Your task to perform on an android device: delete location history Image 0: 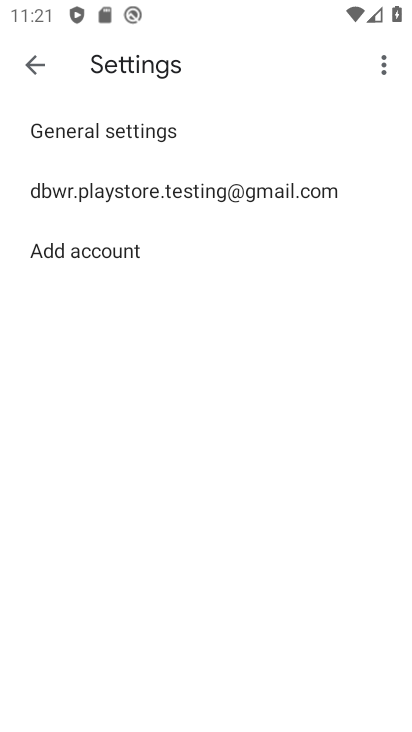
Step 0: press home button
Your task to perform on an android device: delete location history Image 1: 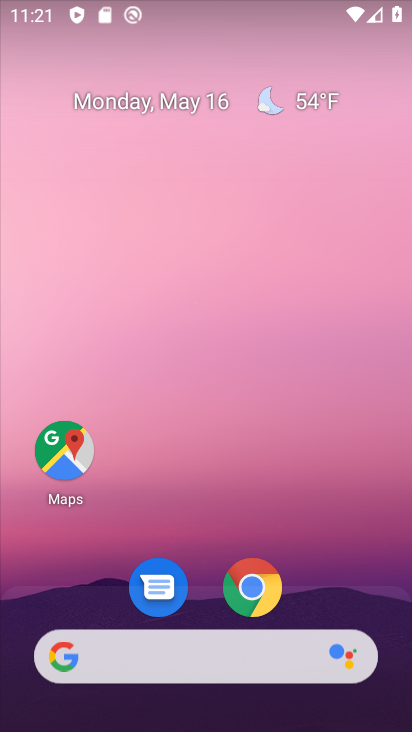
Step 1: click (71, 466)
Your task to perform on an android device: delete location history Image 2: 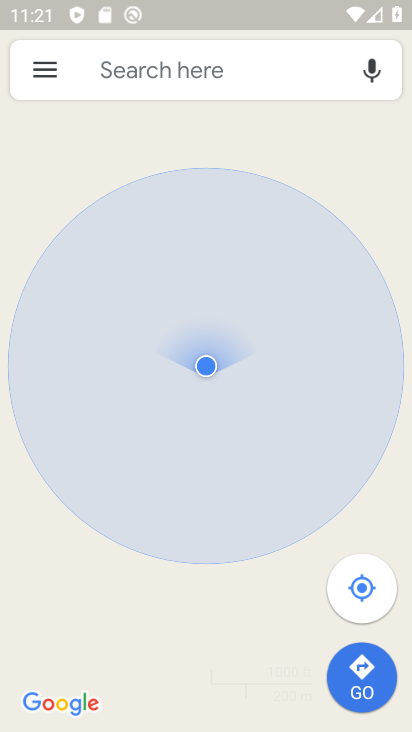
Step 2: click (50, 67)
Your task to perform on an android device: delete location history Image 3: 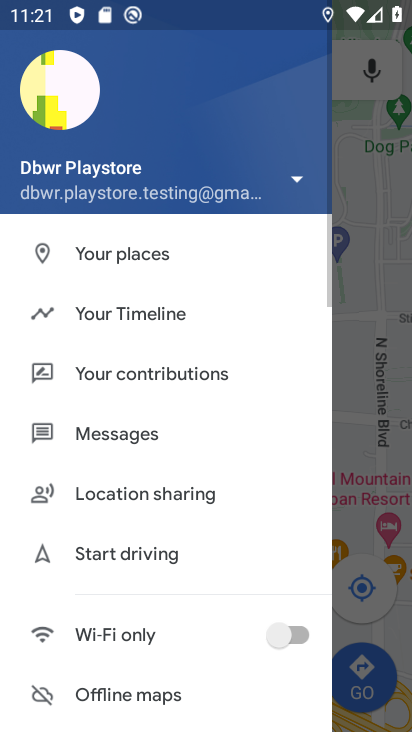
Step 3: click (136, 315)
Your task to perform on an android device: delete location history Image 4: 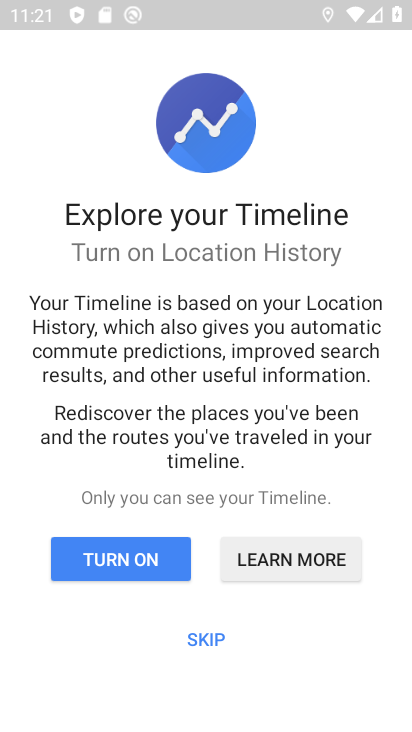
Step 4: click (212, 642)
Your task to perform on an android device: delete location history Image 5: 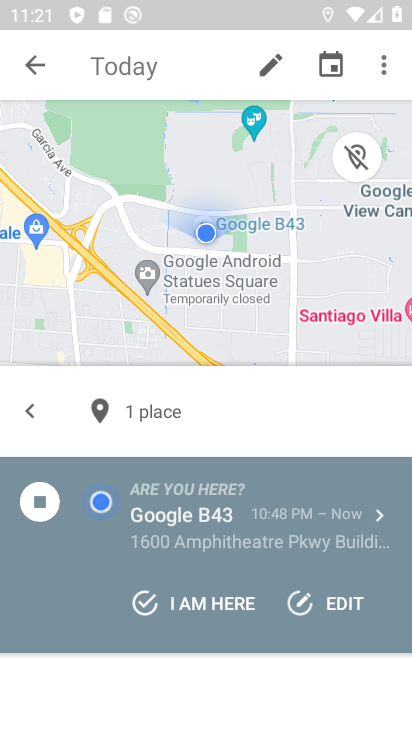
Step 5: click (370, 59)
Your task to perform on an android device: delete location history Image 6: 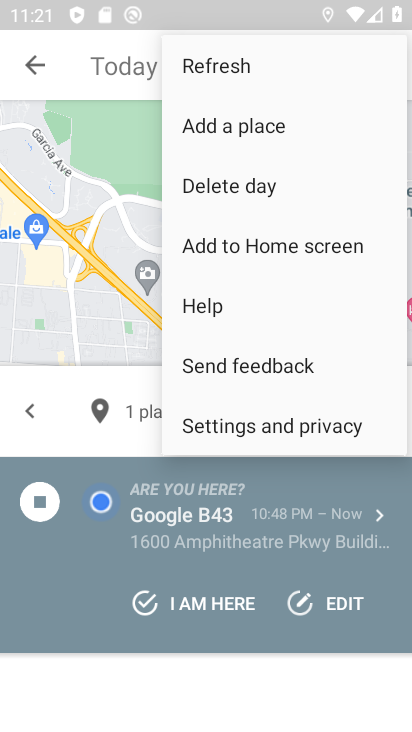
Step 6: click (242, 420)
Your task to perform on an android device: delete location history Image 7: 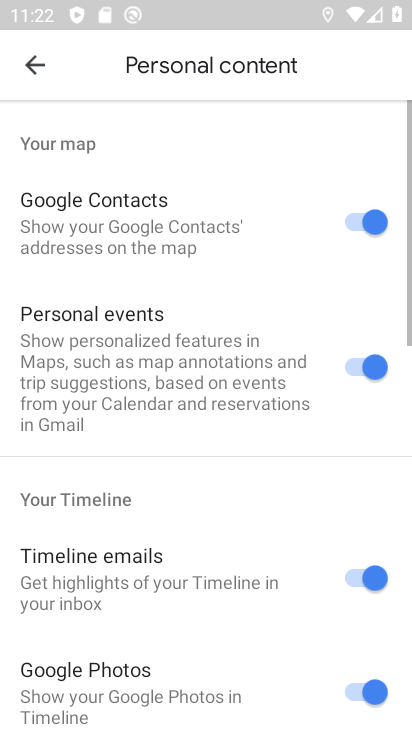
Step 7: drag from (121, 537) to (139, 266)
Your task to perform on an android device: delete location history Image 8: 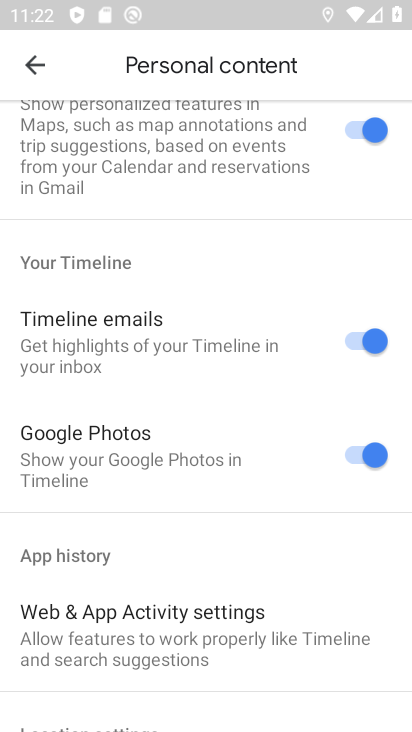
Step 8: drag from (129, 599) to (163, 388)
Your task to perform on an android device: delete location history Image 9: 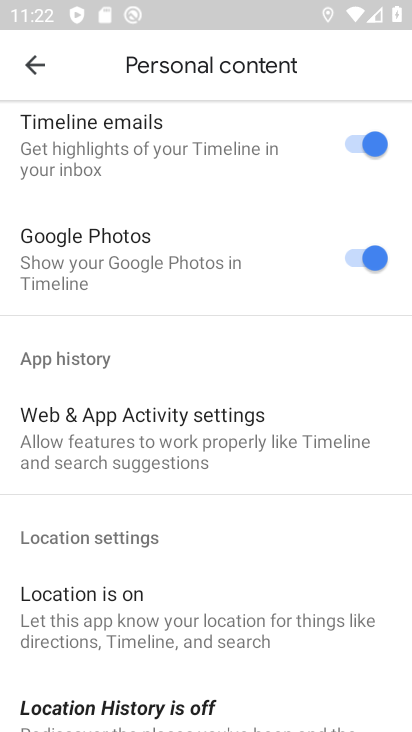
Step 9: drag from (151, 576) to (182, 372)
Your task to perform on an android device: delete location history Image 10: 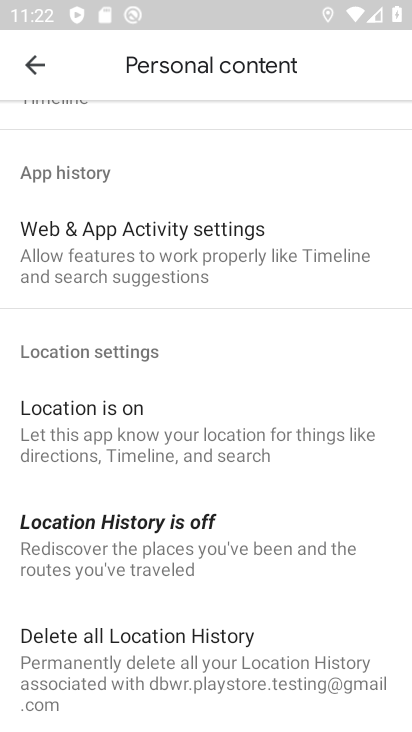
Step 10: click (149, 630)
Your task to perform on an android device: delete location history Image 11: 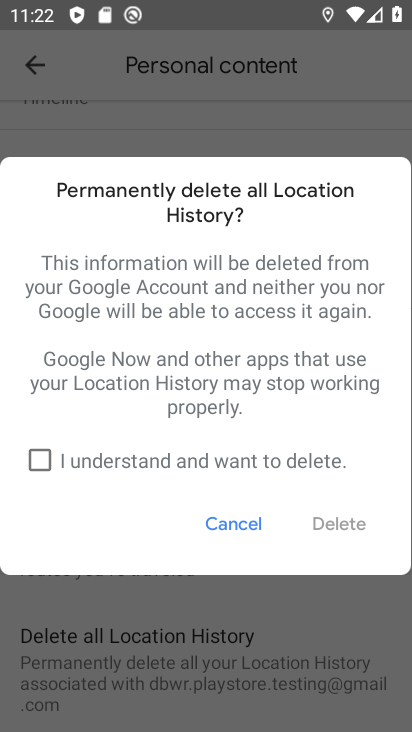
Step 11: click (134, 464)
Your task to perform on an android device: delete location history Image 12: 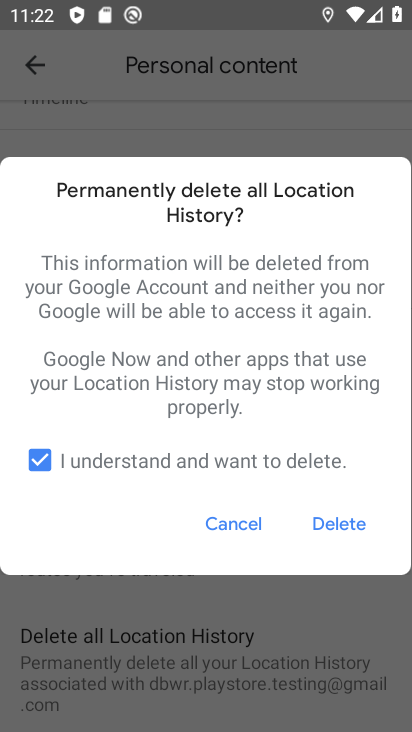
Step 12: click (323, 522)
Your task to perform on an android device: delete location history Image 13: 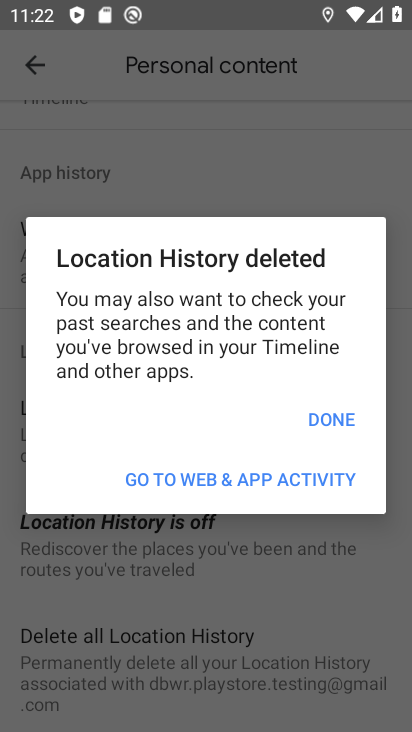
Step 13: click (333, 422)
Your task to perform on an android device: delete location history Image 14: 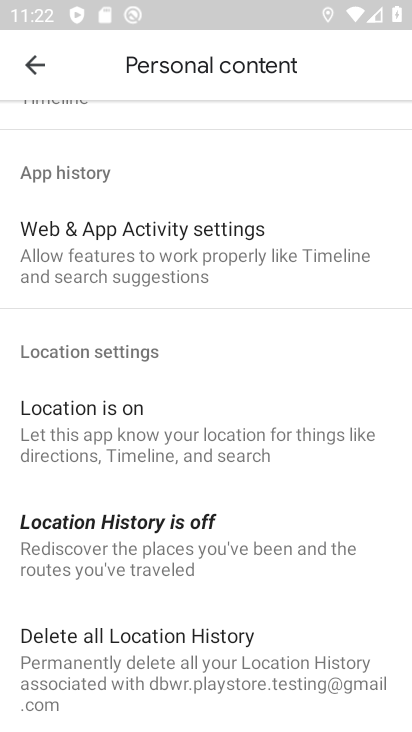
Step 14: task complete